Your task to perform on an android device: find photos in the google photos app Image 0: 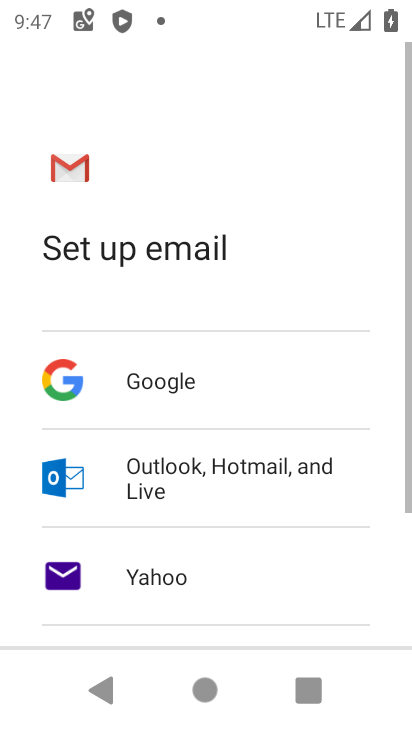
Step 0: press home button
Your task to perform on an android device: find photos in the google photos app Image 1: 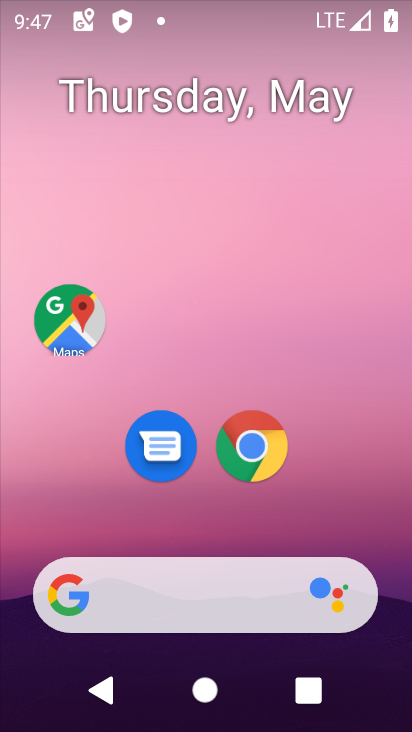
Step 1: drag from (400, 598) to (309, 37)
Your task to perform on an android device: find photos in the google photos app Image 2: 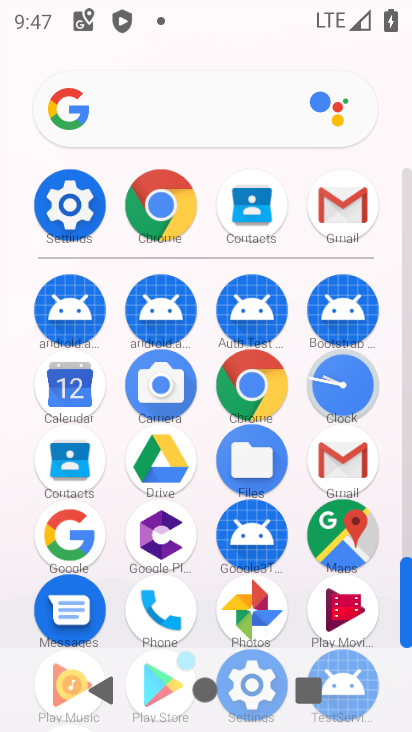
Step 2: click (250, 609)
Your task to perform on an android device: find photos in the google photos app Image 3: 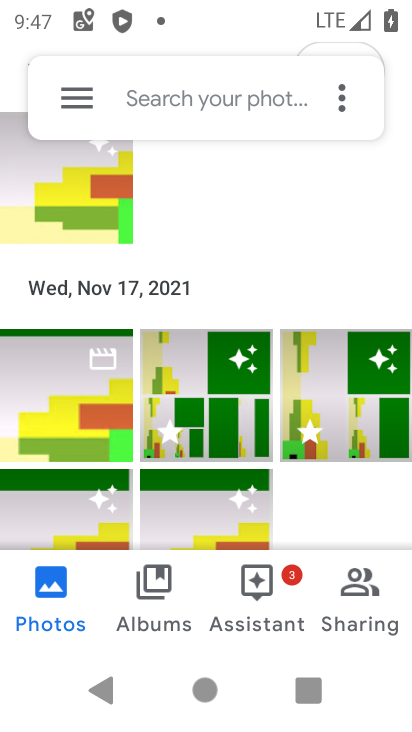
Step 3: task complete